Your task to perform on an android device: change the clock display to analog Image 0: 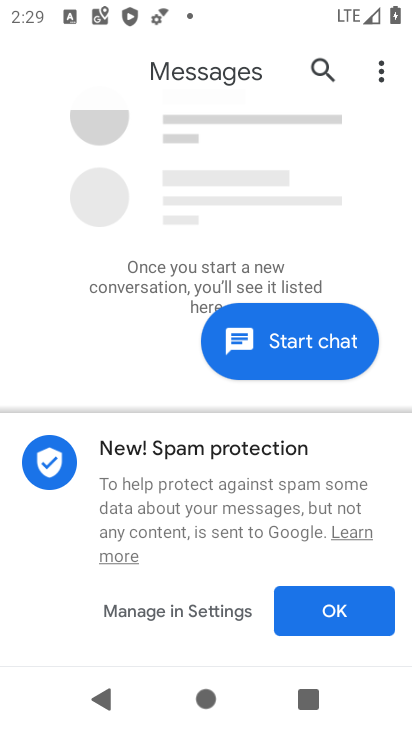
Step 0: press home button
Your task to perform on an android device: change the clock display to analog Image 1: 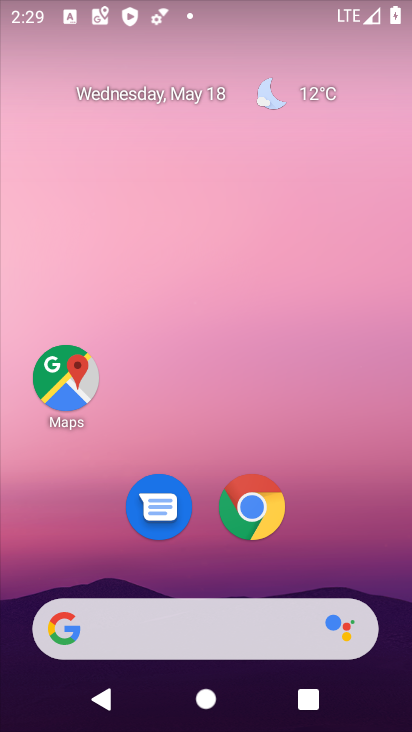
Step 1: drag from (396, 616) to (349, 143)
Your task to perform on an android device: change the clock display to analog Image 2: 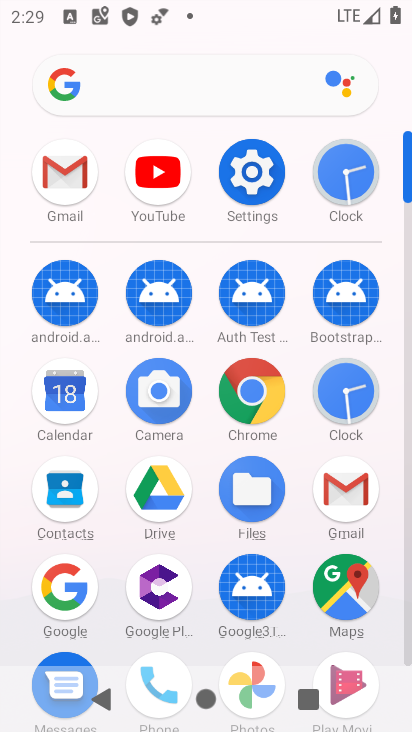
Step 2: click (345, 392)
Your task to perform on an android device: change the clock display to analog Image 3: 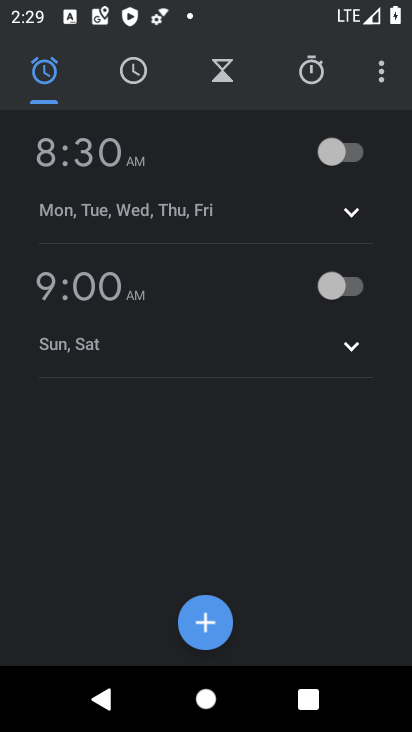
Step 3: click (379, 79)
Your task to perform on an android device: change the clock display to analog Image 4: 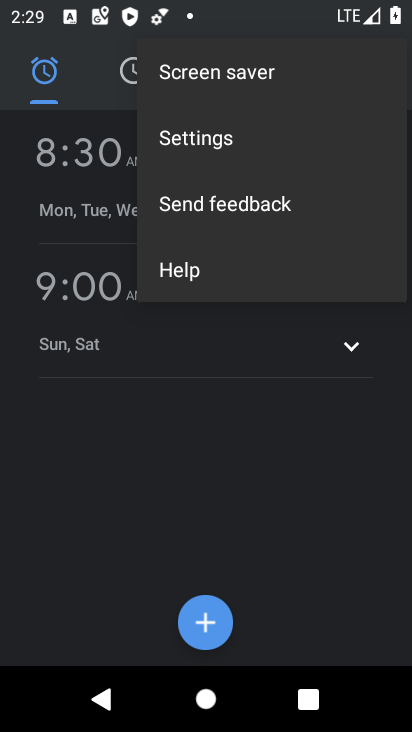
Step 4: click (180, 131)
Your task to perform on an android device: change the clock display to analog Image 5: 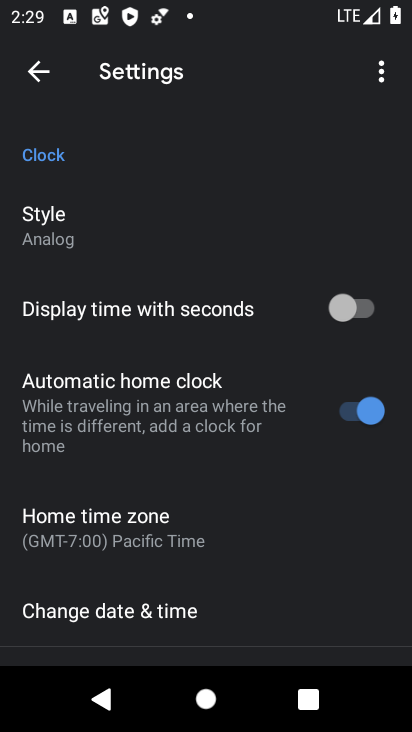
Step 5: task complete